Your task to perform on an android device: toggle airplane mode Image 0: 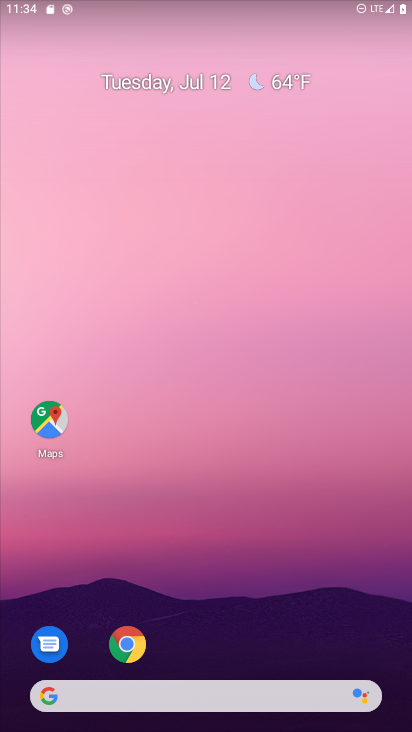
Step 0: click (311, 636)
Your task to perform on an android device: toggle airplane mode Image 1: 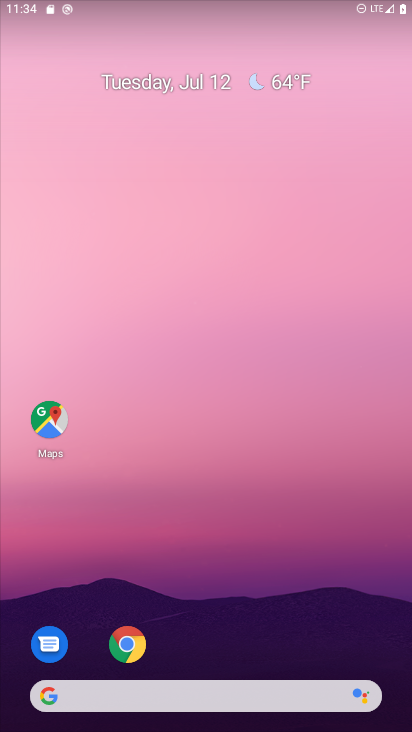
Step 1: drag from (311, 636) to (272, 150)
Your task to perform on an android device: toggle airplane mode Image 2: 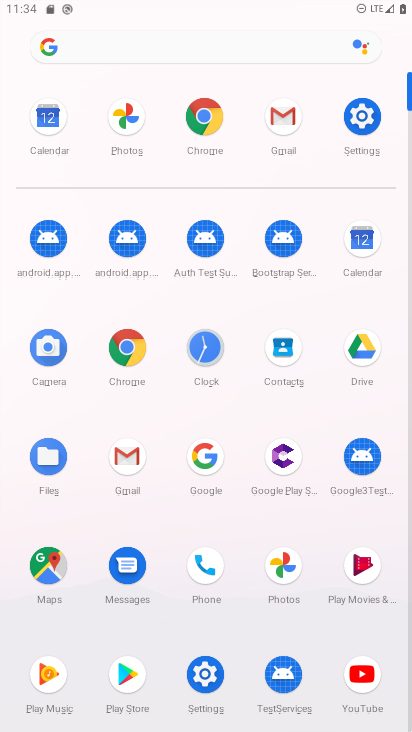
Step 2: click (362, 138)
Your task to perform on an android device: toggle airplane mode Image 3: 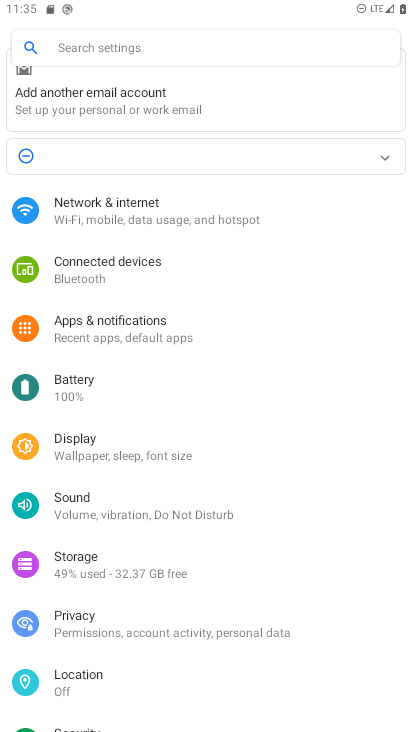
Step 3: click (236, 219)
Your task to perform on an android device: toggle airplane mode Image 4: 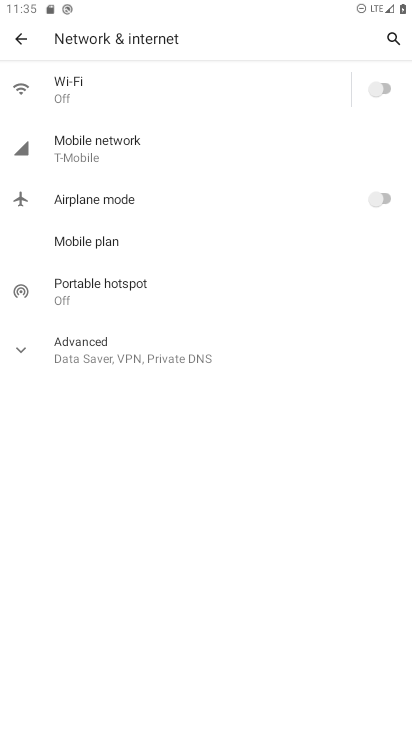
Step 4: click (370, 193)
Your task to perform on an android device: toggle airplane mode Image 5: 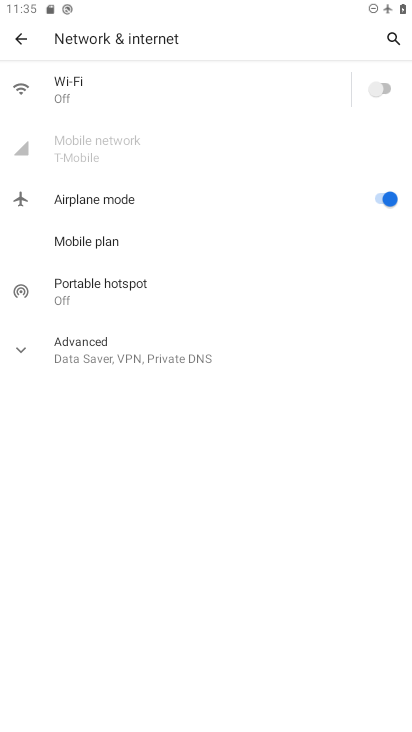
Step 5: task complete